Your task to perform on an android device: check battery use Image 0: 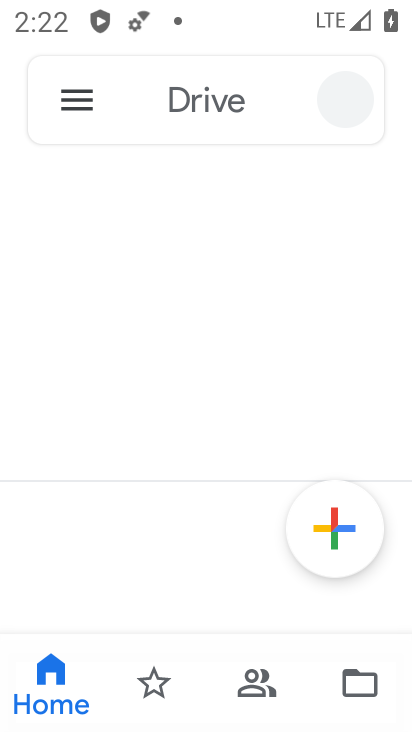
Step 0: click (313, 378)
Your task to perform on an android device: check battery use Image 1: 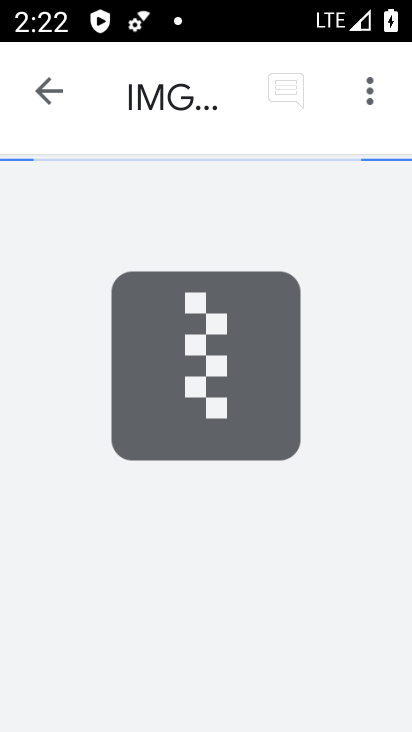
Step 1: press home button
Your task to perform on an android device: check battery use Image 2: 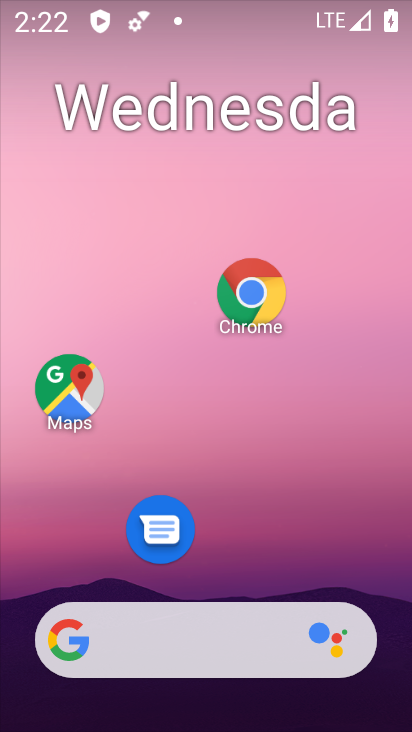
Step 2: drag from (268, 580) to (287, 228)
Your task to perform on an android device: check battery use Image 3: 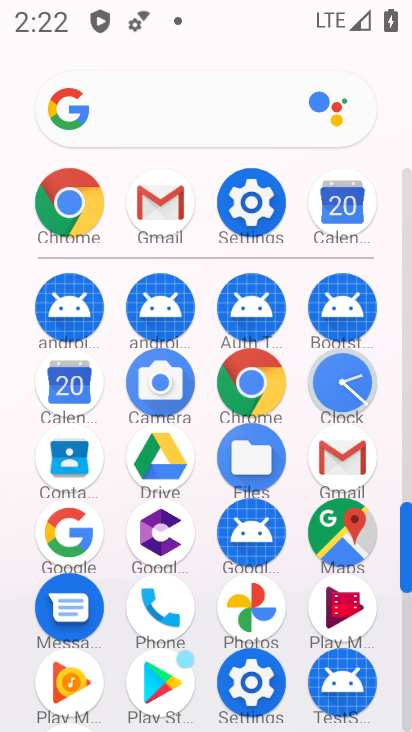
Step 3: click (242, 199)
Your task to perform on an android device: check battery use Image 4: 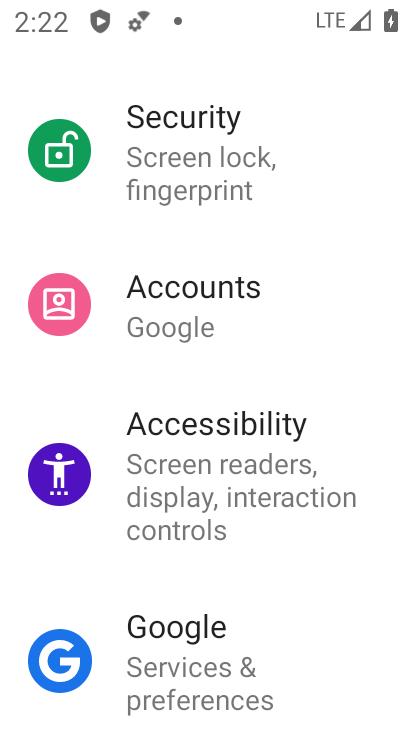
Step 4: drag from (242, 199) to (238, 392)
Your task to perform on an android device: check battery use Image 5: 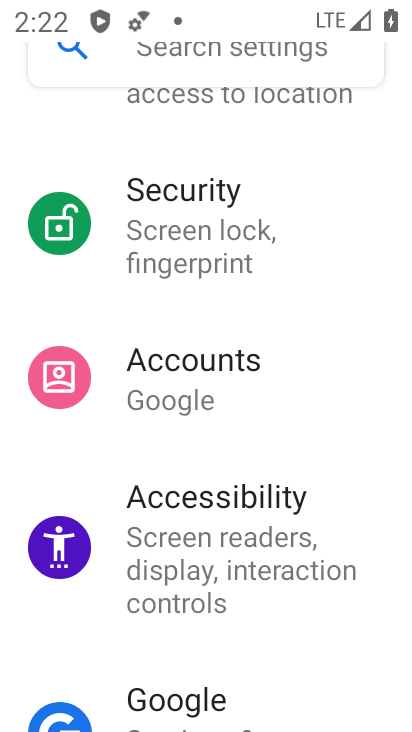
Step 5: drag from (213, 261) to (199, 665)
Your task to perform on an android device: check battery use Image 6: 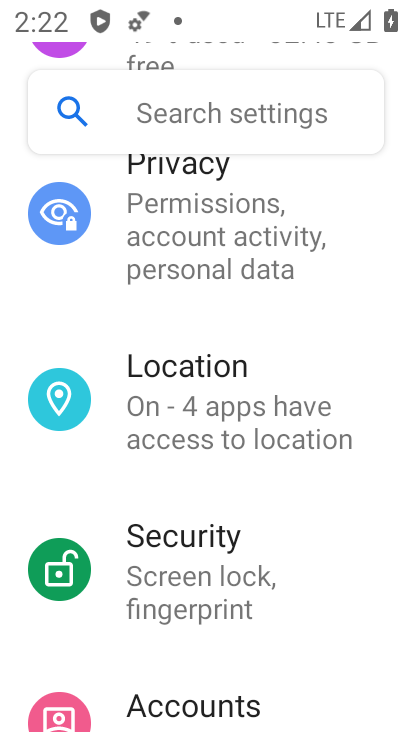
Step 6: drag from (202, 262) to (198, 565)
Your task to perform on an android device: check battery use Image 7: 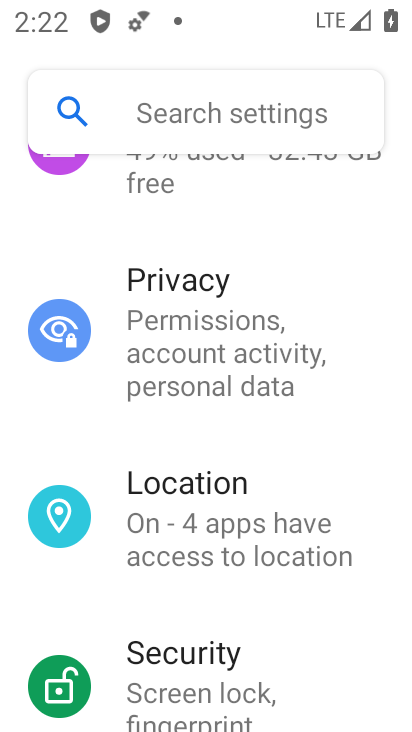
Step 7: drag from (220, 233) to (200, 566)
Your task to perform on an android device: check battery use Image 8: 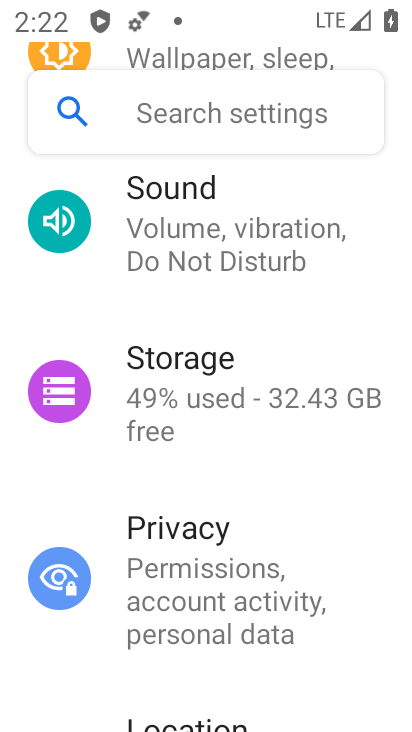
Step 8: drag from (216, 241) to (195, 526)
Your task to perform on an android device: check battery use Image 9: 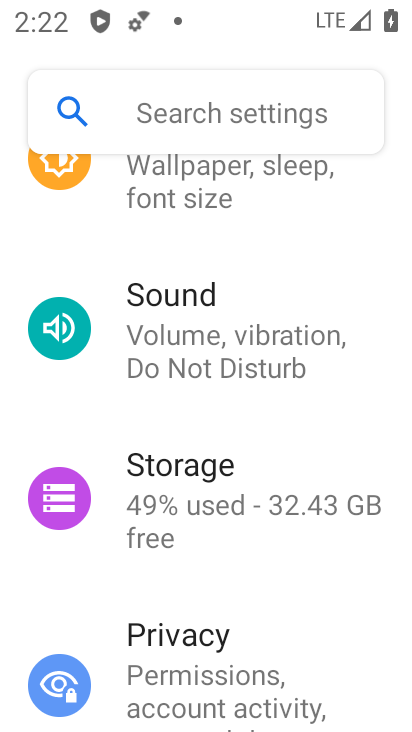
Step 9: drag from (234, 303) to (211, 616)
Your task to perform on an android device: check battery use Image 10: 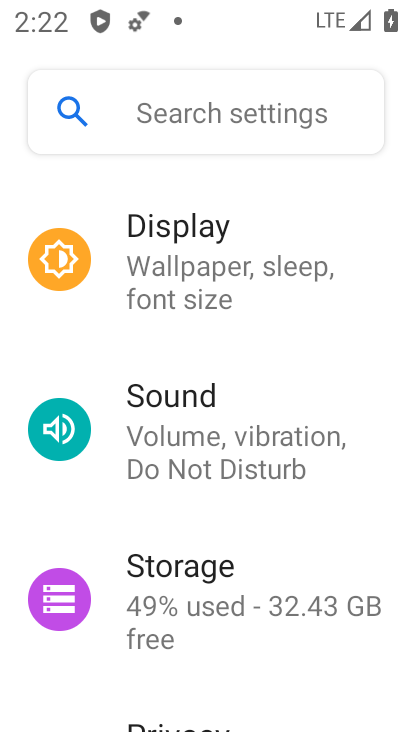
Step 10: drag from (242, 383) to (220, 654)
Your task to perform on an android device: check battery use Image 11: 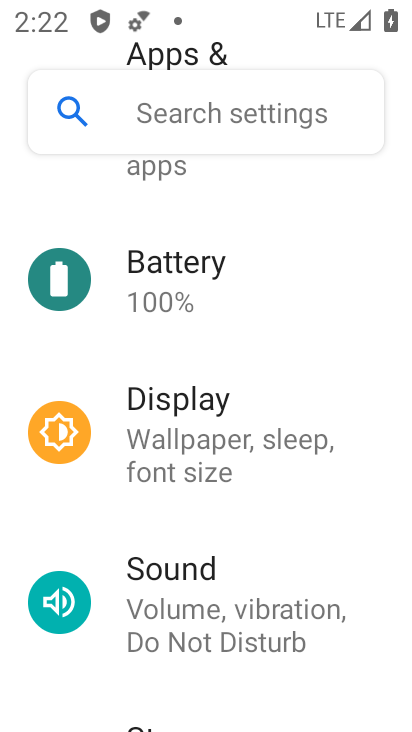
Step 11: click (222, 288)
Your task to perform on an android device: check battery use Image 12: 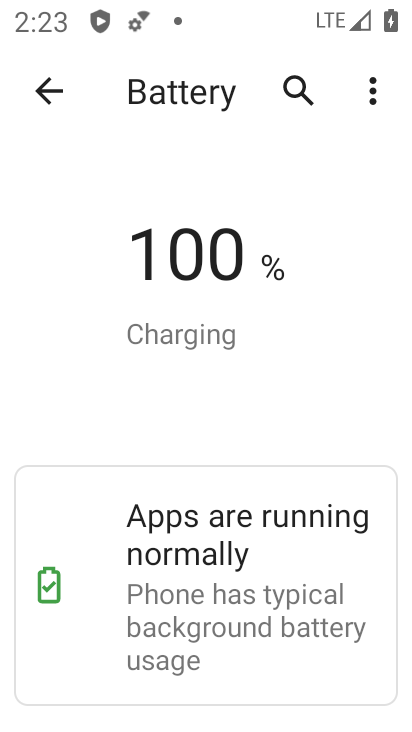
Step 12: task complete